Your task to perform on an android device: Go to wifi settings Image 0: 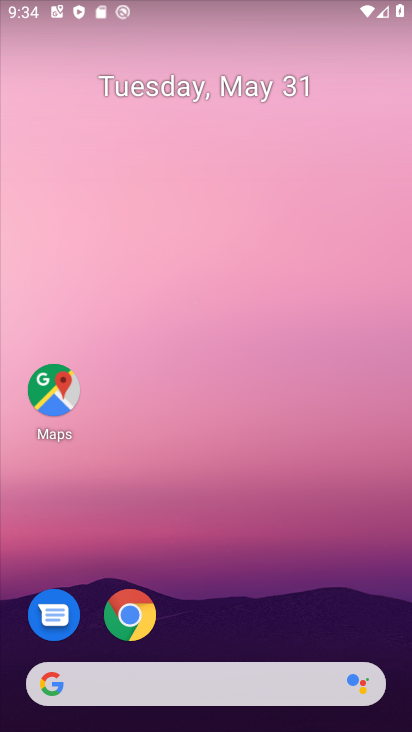
Step 0: drag from (360, 636) to (301, 67)
Your task to perform on an android device: Go to wifi settings Image 1: 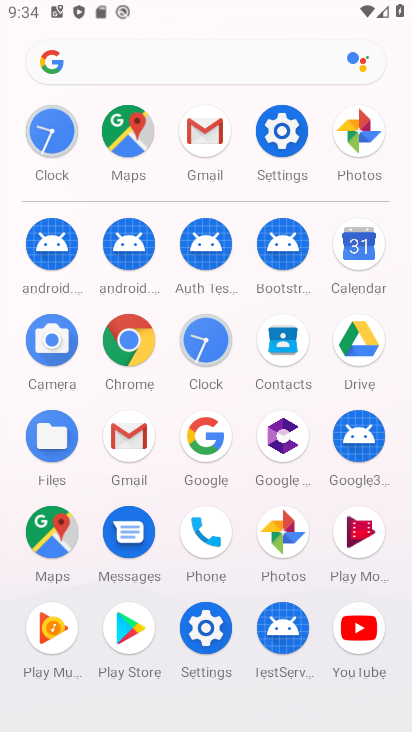
Step 1: click (205, 628)
Your task to perform on an android device: Go to wifi settings Image 2: 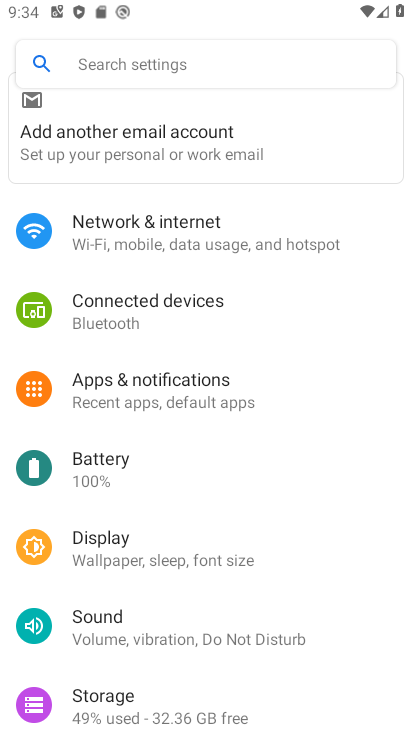
Step 2: click (131, 219)
Your task to perform on an android device: Go to wifi settings Image 3: 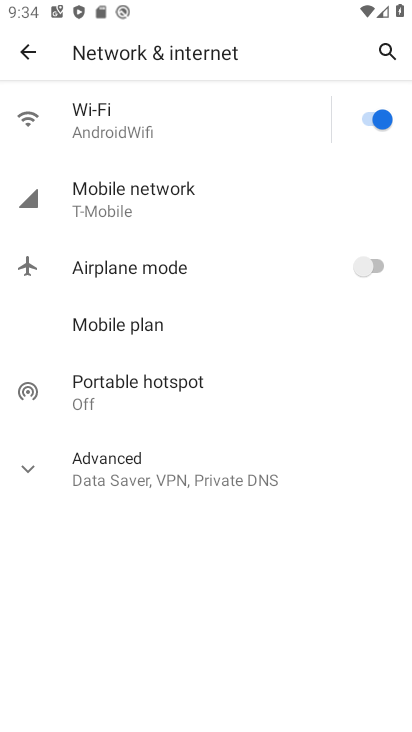
Step 3: click (80, 105)
Your task to perform on an android device: Go to wifi settings Image 4: 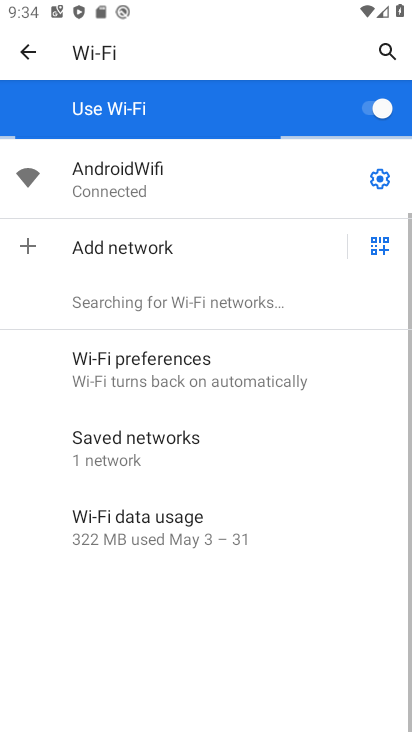
Step 4: click (376, 180)
Your task to perform on an android device: Go to wifi settings Image 5: 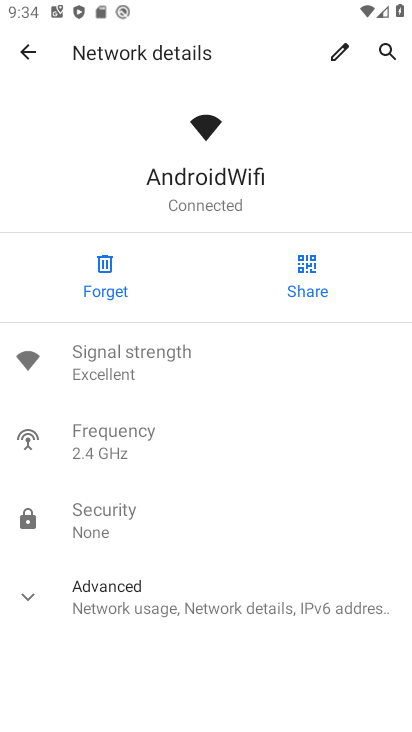
Step 5: click (29, 598)
Your task to perform on an android device: Go to wifi settings Image 6: 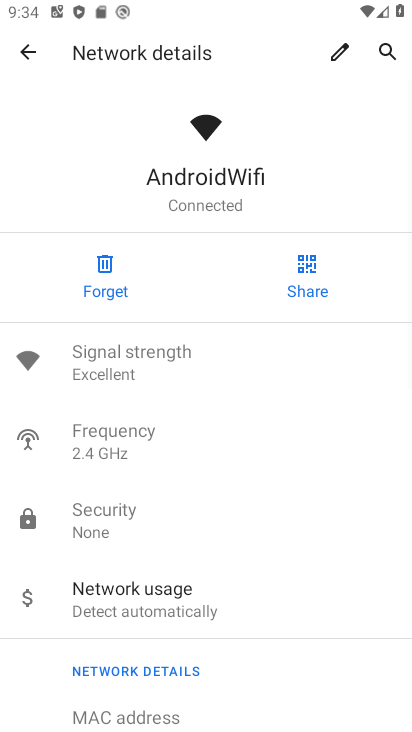
Step 6: task complete